Your task to perform on an android device: refresh tabs in the chrome app Image 0: 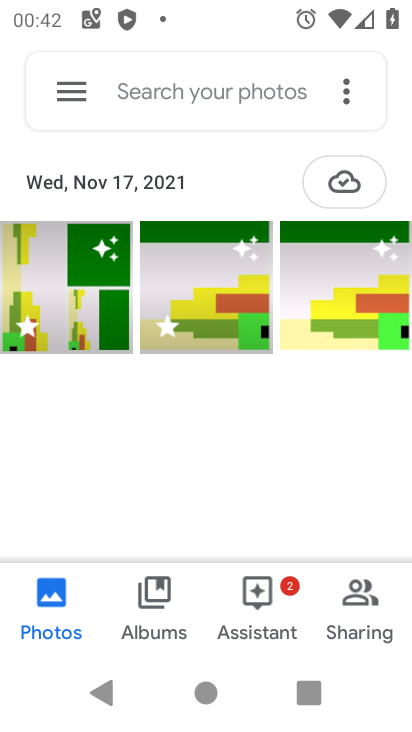
Step 0: press home button
Your task to perform on an android device: refresh tabs in the chrome app Image 1: 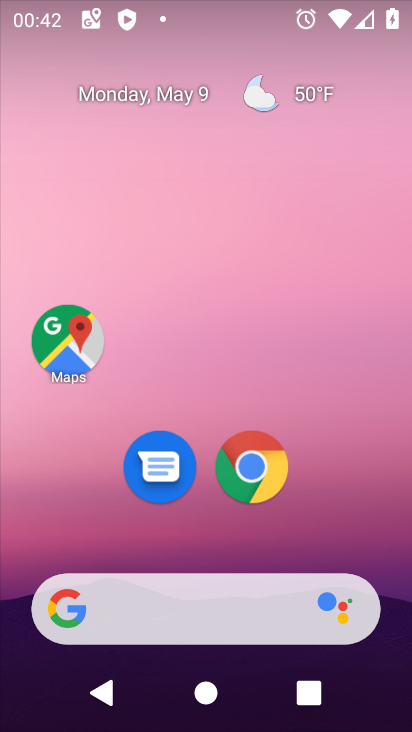
Step 1: click (244, 457)
Your task to perform on an android device: refresh tabs in the chrome app Image 2: 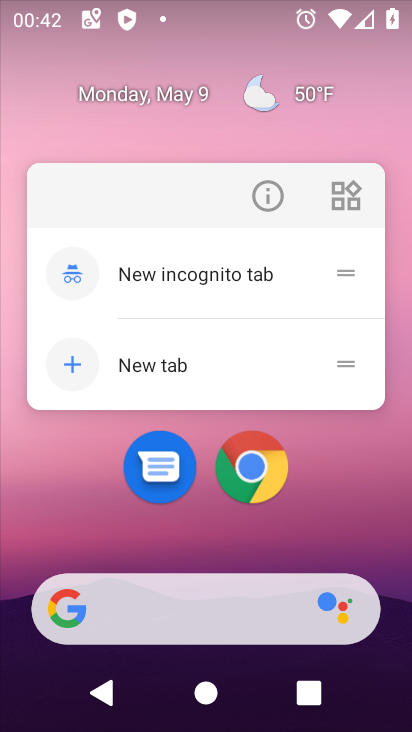
Step 2: click (248, 457)
Your task to perform on an android device: refresh tabs in the chrome app Image 3: 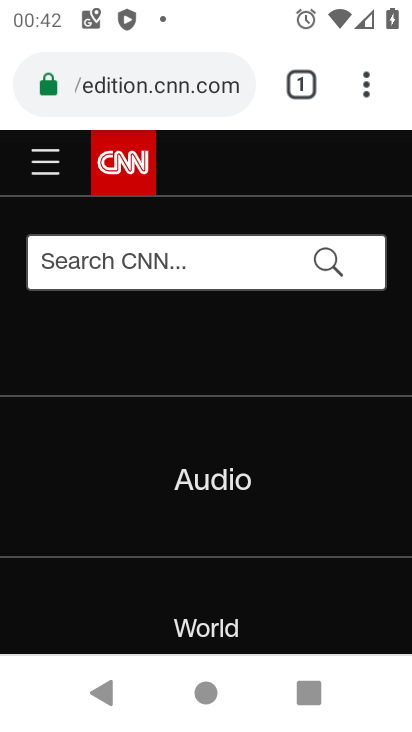
Step 3: click (367, 94)
Your task to perform on an android device: refresh tabs in the chrome app Image 4: 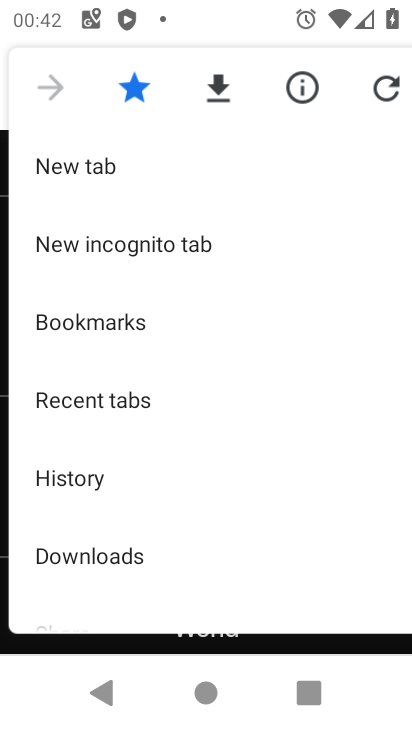
Step 4: click (149, 391)
Your task to perform on an android device: refresh tabs in the chrome app Image 5: 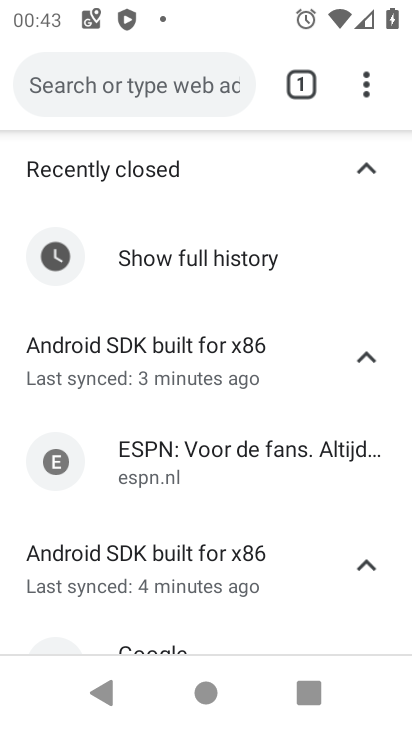
Step 5: task complete